Your task to perform on an android device: Is it going to rain this weekend? Image 0: 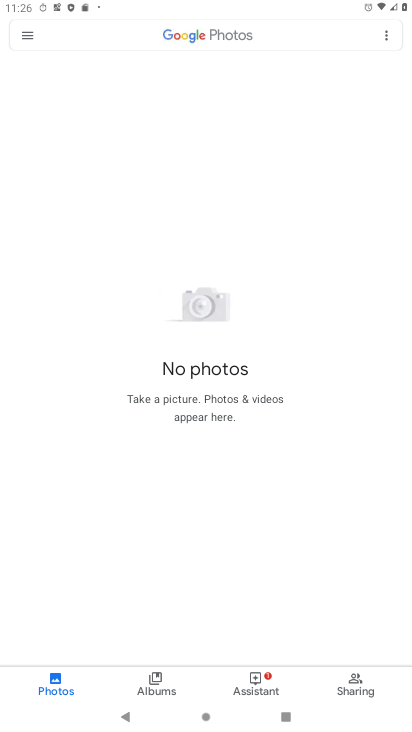
Step 0: press back button
Your task to perform on an android device: Is it going to rain this weekend? Image 1: 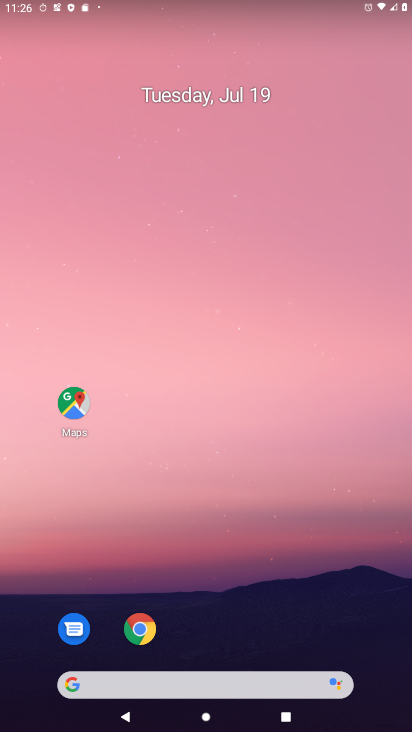
Step 1: drag from (244, 660) to (145, 96)
Your task to perform on an android device: Is it going to rain this weekend? Image 2: 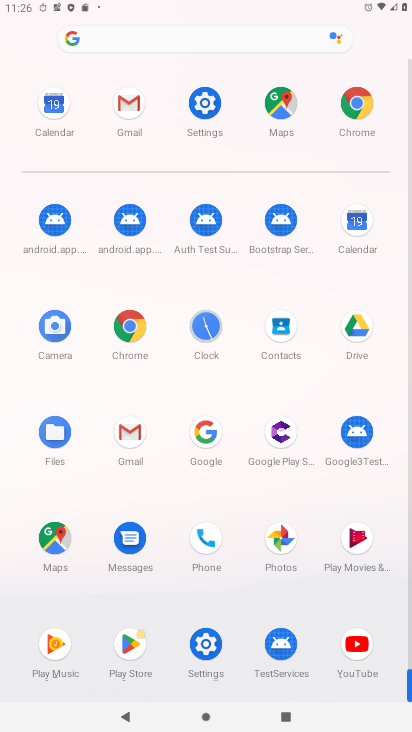
Step 2: press back button
Your task to perform on an android device: Is it going to rain this weekend? Image 3: 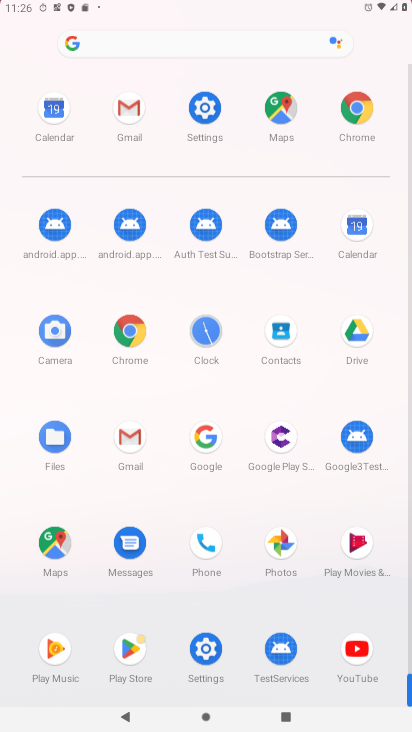
Step 3: press back button
Your task to perform on an android device: Is it going to rain this weekend? Image 4: 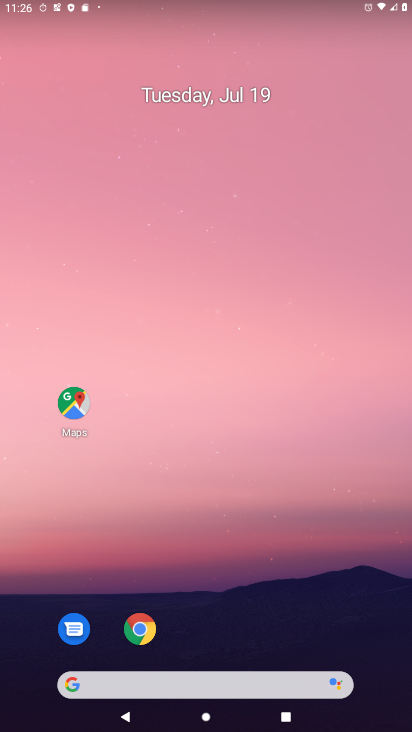
Step 4: drag from (8, 149) to (383, 354)
Your task to perform on an android device: Is it going to rain this weekend? Image 5: 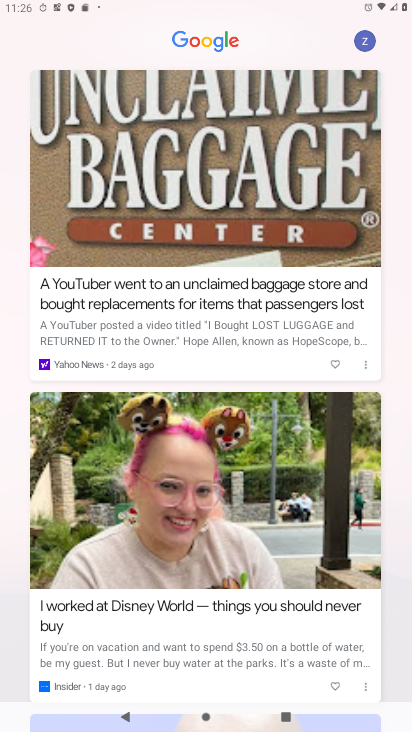
Step 5: drag from (110, 130) to (227, 335)
Your task to perform on an android device: Is it going to rain this weekend? Image 6: 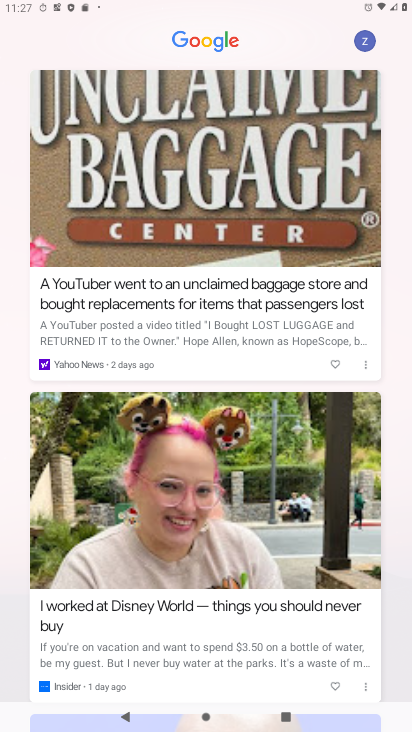
Step 6: press back button
Your task to perform on an android device: Is it going to rain this weekend? Image 7: 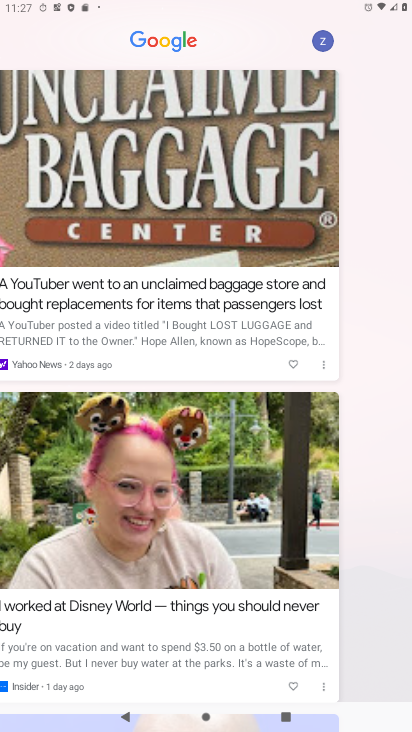
Step 7: press back button
Your task to perform on an android device: Is it going to rain this weekend? Image 8: 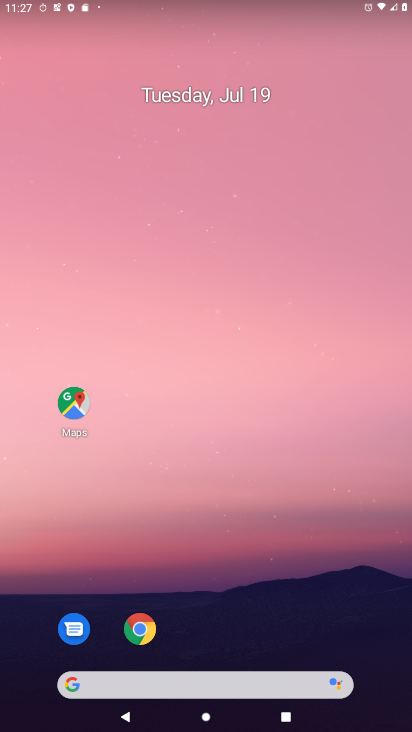
Step 8: drag from (218, 562) to (218, 125)
Your task to perform on an android device: Is it going to rain this weekend? Image 9: 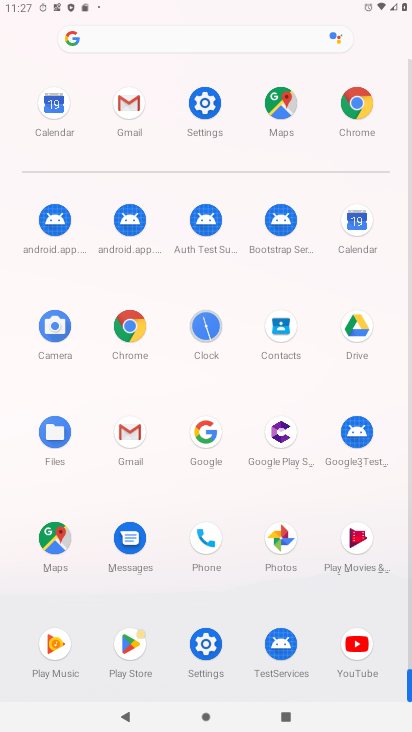
Step 9: click (352, 110)
Your task to perform on an android device: Is it going to rain this weekend? Image 10: 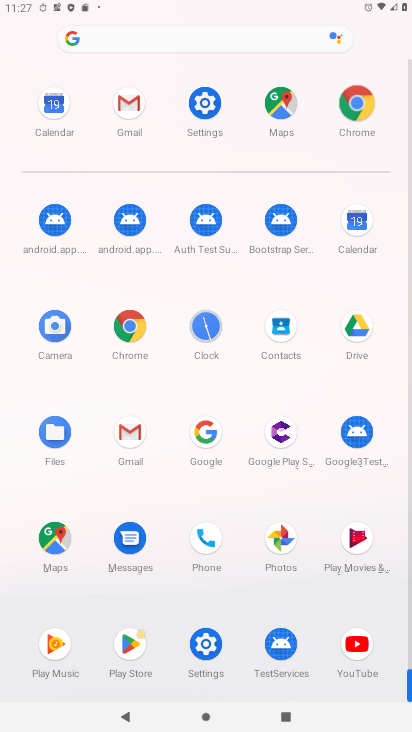
Step 10: click (357, 105)
Your task to perform on an android device: Is it going to rain this weekend? Image 11: 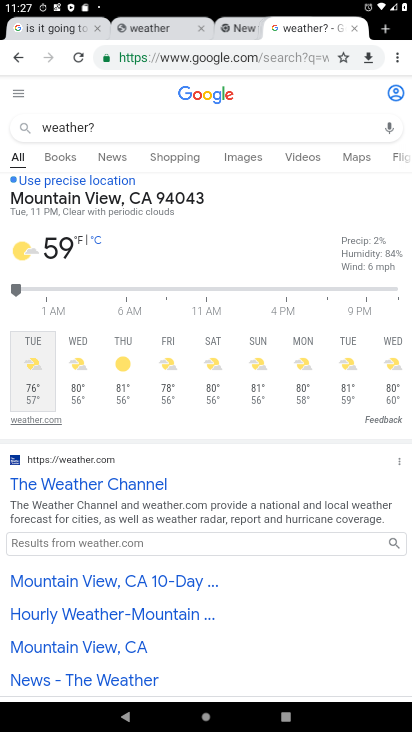
Step 11: click (355, 23)
Your task to perform on an android device: Is it going to rain this weekend? Image 12: 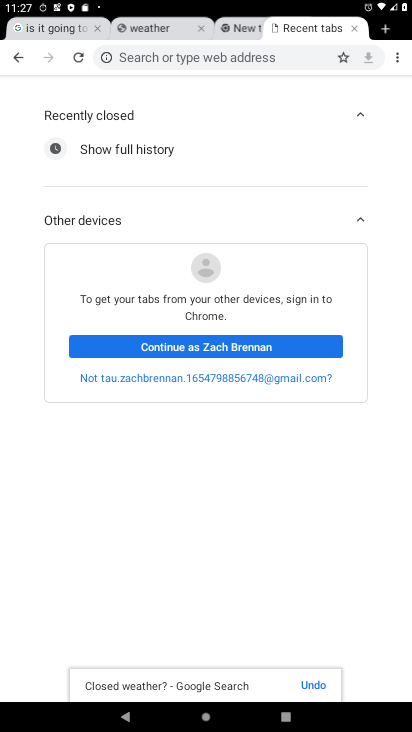
Step 12: click (203, 28)
Your task to perform on an android device: Is it going to rain this weekend? Image 13: 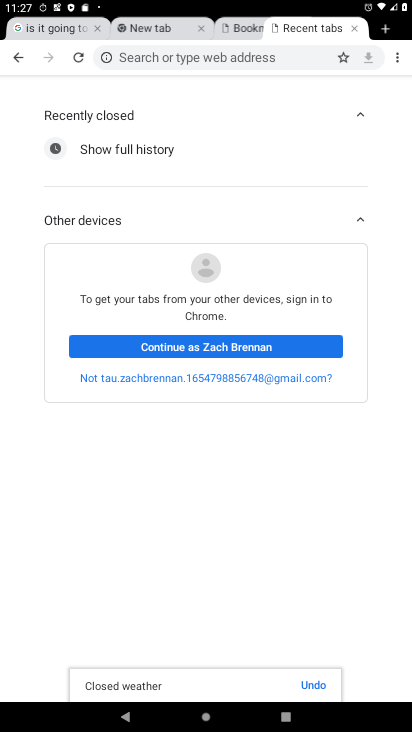
Step 13: click (92, 26)
Your task to perform on an android device: Is it going to rain this weekend? Image 14: 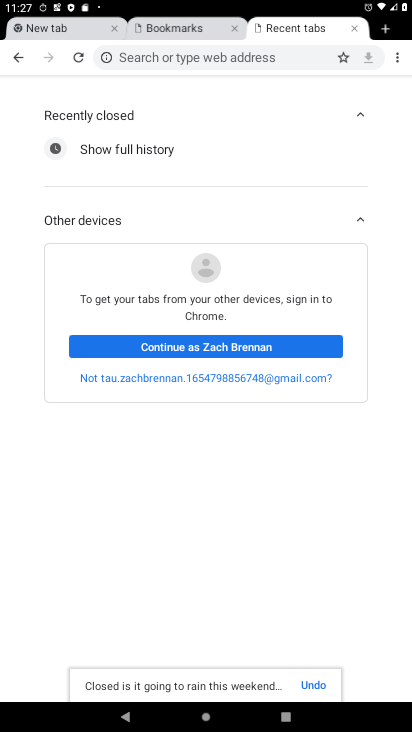
Step 14: click (231, 26)
Your task to perform on an android device: Is it going to rain this weekend? Image 15: 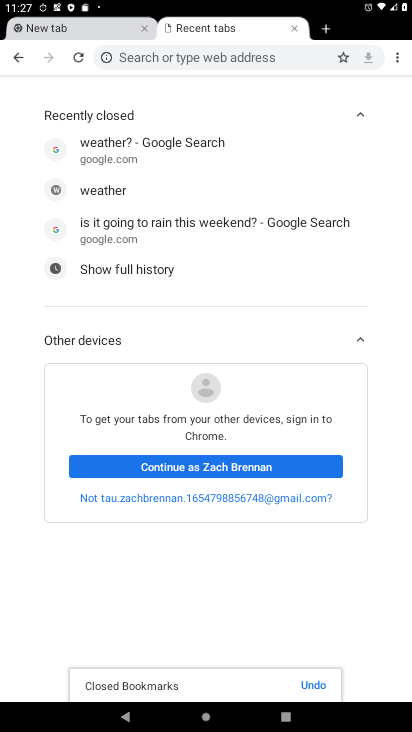
Step 15: click (291, 25)
Your task to perform on an android device: Is it going to rain this weekend? Image 16: 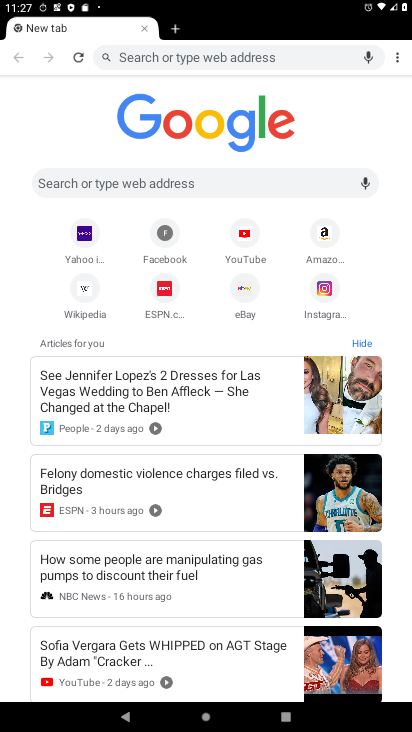
Step 16: type "is it going to rain this weekernd?"
Your task to perform on an android device: Is it going to rain this weekend? Image 17: 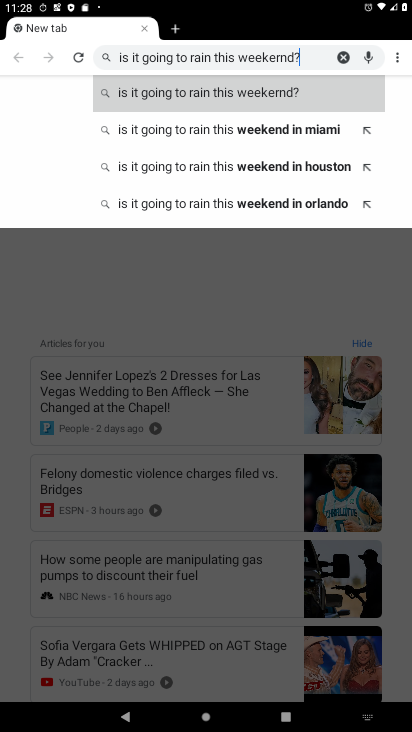
Step 17: click (203, 94)
Your task to perform on an android device: Is it going to rain this weekend? Image 18: 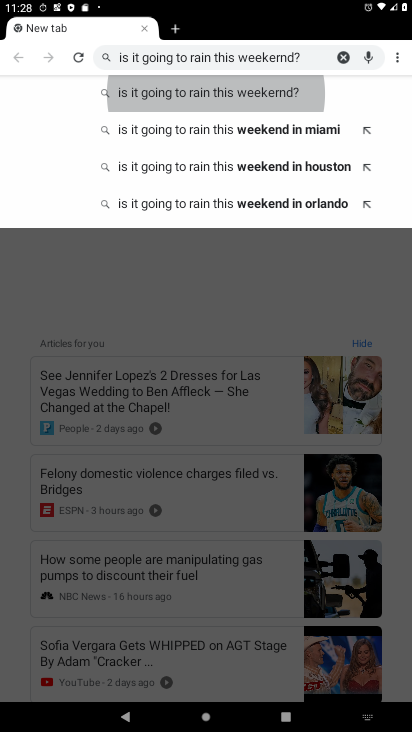
Step 18: click (212, 90)
Your task to perform on an android device: Is it going to rain this weekend? Image 19: 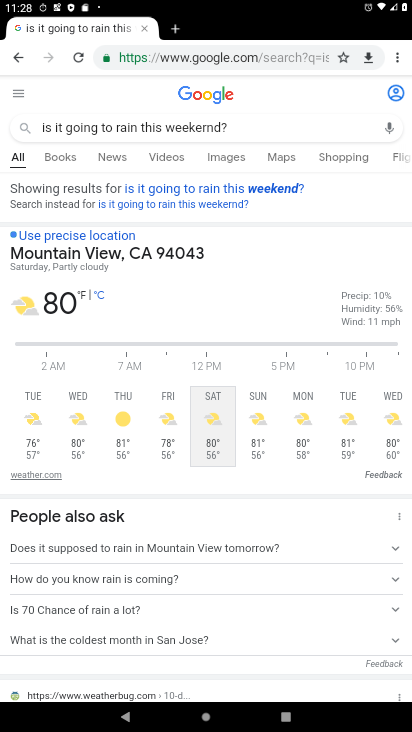
Step 19: task complete